Your task to perform on an android device: Go to Android settings Image 0: 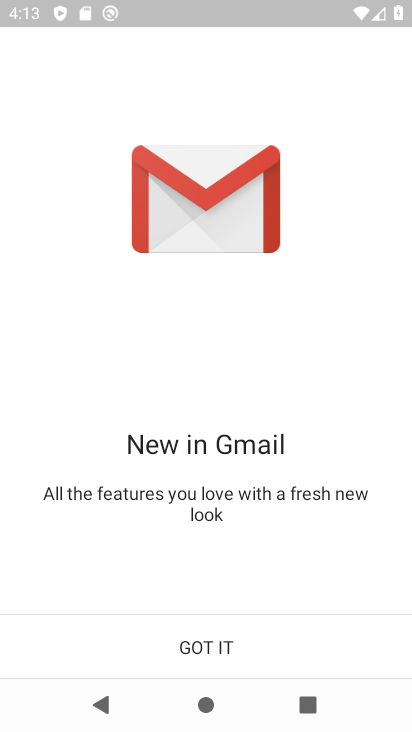
Step 0: press home button
Your task to perform on an android device: Go to Android settings Image 1: 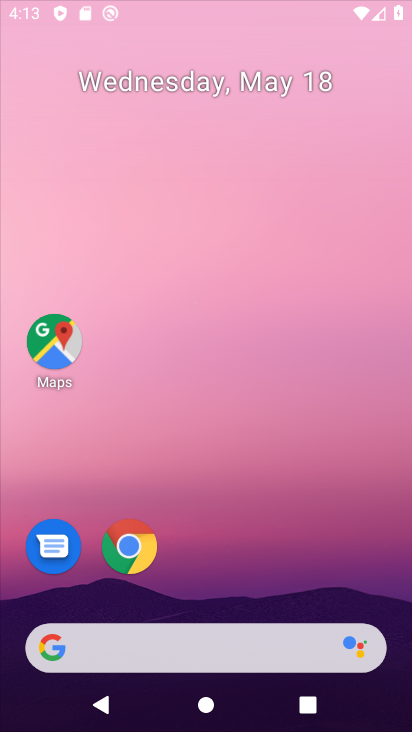
Step 1: drag from (328, 555) to (360, 141)
Your task to perform on an android device: Go to Android settings Image 2: 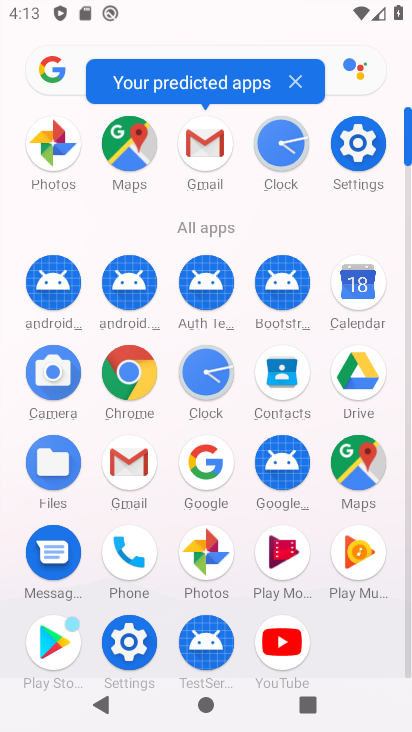
Step 2: drag from (356, 287) to (380, 181)
Your task to perform on an android device: Go to Android settings Image 3: 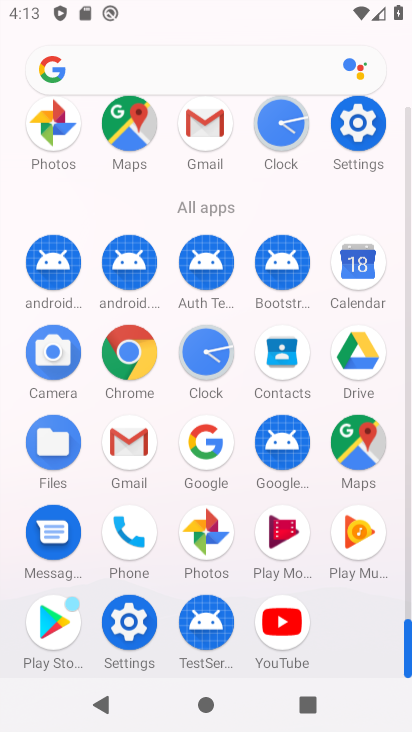
Step 3: click (358, 141)
Your task to perform on an android device: Go to Android settings Image 4: 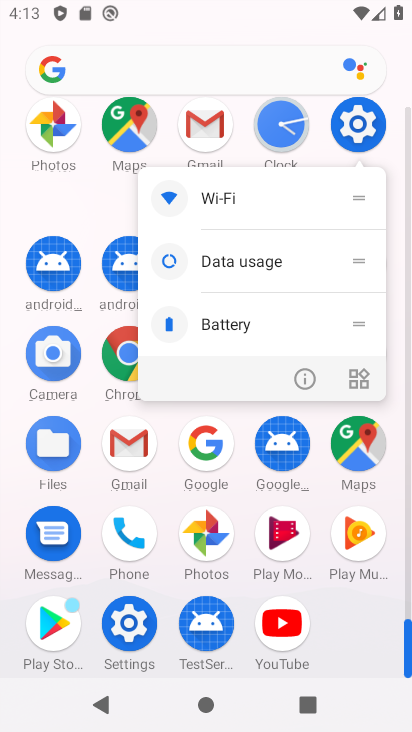
Step 4: click (358, 141)
Your task to perform on an android device: Go to Android settings Image 5: 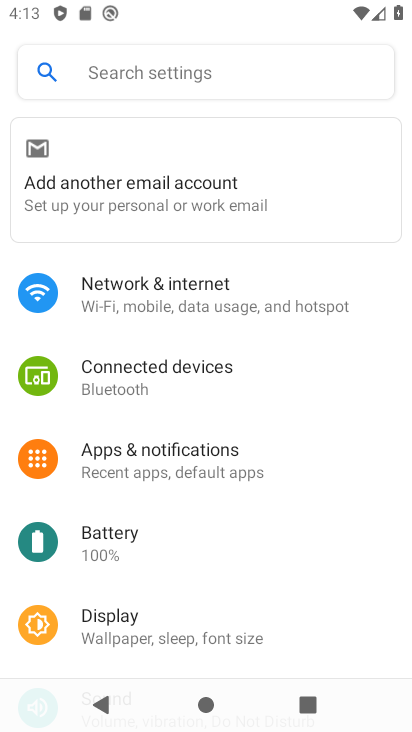
Step 5: drag from (254, 610) to (267, 165)
Your task to perform on an android device: Go to Android settings Image 6: 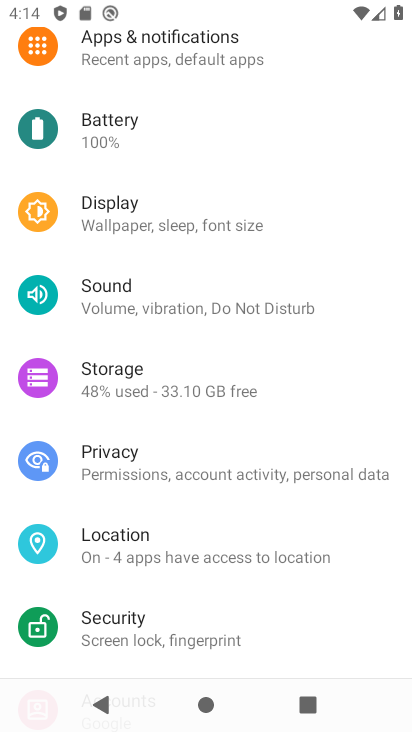
Step 6: drag from (229, 606) to (264, 150)
Your task to perform on an android device: Go to Android settings Image 7: 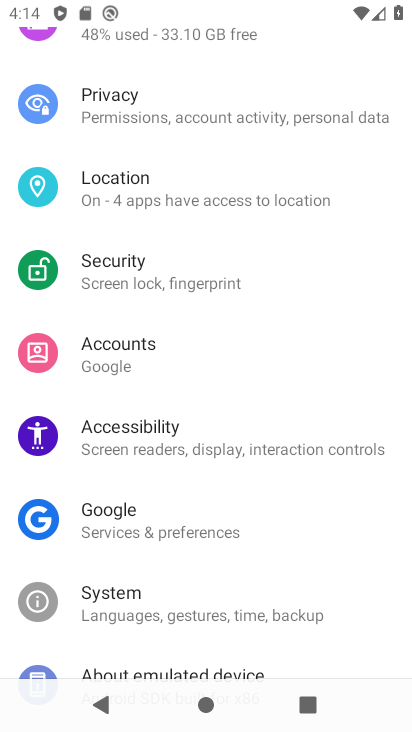
Step 7: click (211, 665)
Your task to perform on an android device: Go to Android settings Image 8: 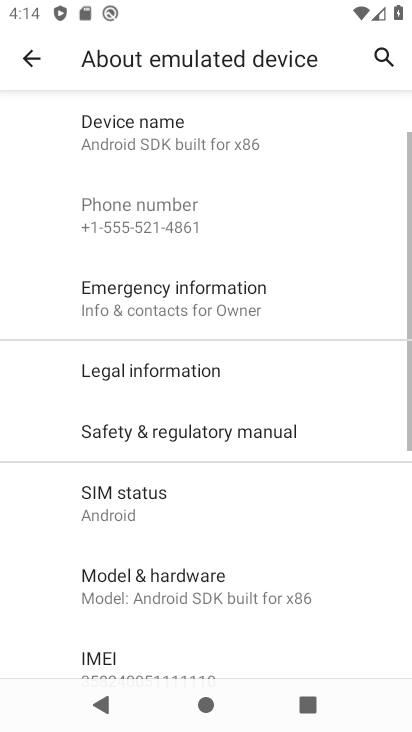
Step 8: drag from (227, 591) to (322, 134)
Your task to perform on an android device: Go to Android settings Image 9: 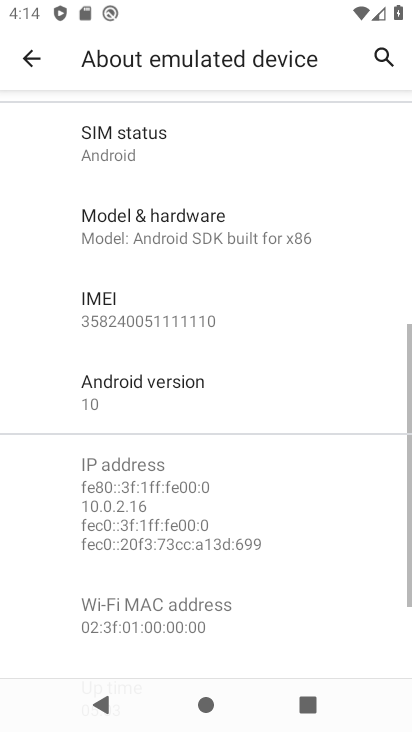
Step 9: click (197, 393)
Your task to perform on an android device: Go to Android settings Image 10: 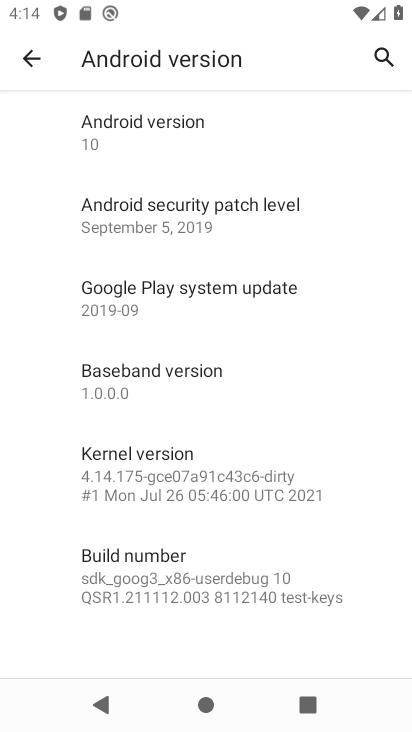
Step 10: task complete